Your task to perform on an android device: turn off improve location accuracy Image 0: 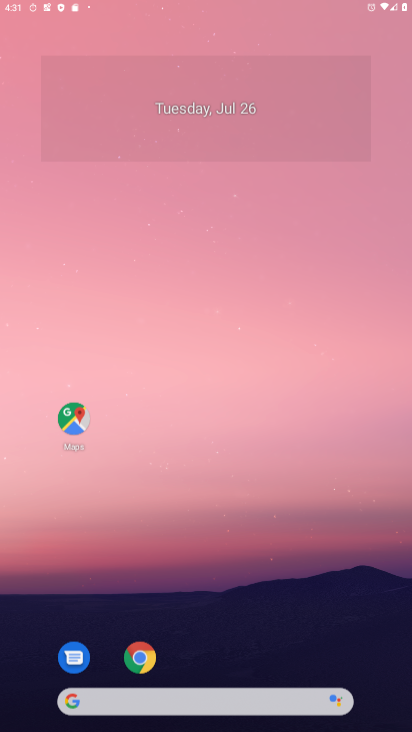
Step 0: press home button
Your task to perform on an android device: turn off improve location accuracy Image 1: 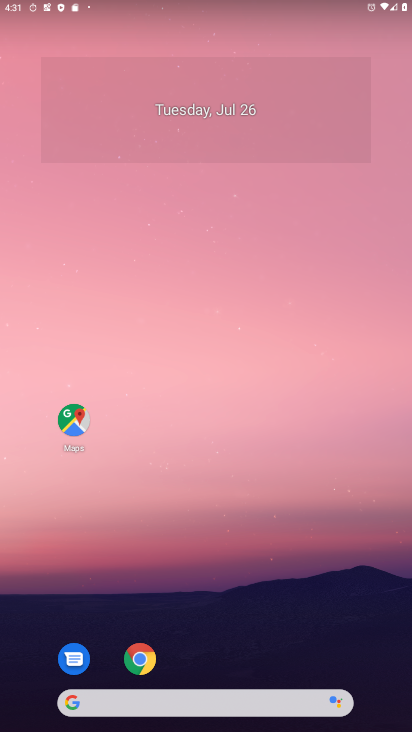
Step 1: drag from (220, 670) to (287, 25)
Your task to perform on an android device: turn off improve location accuracy Image 2: 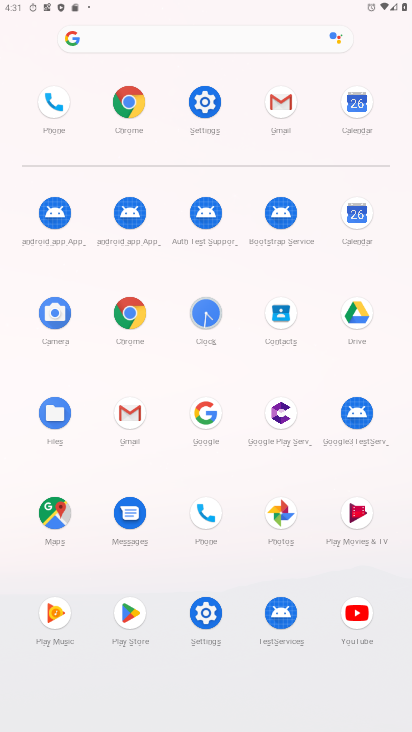
Step 2: click (211, 105)
Your task to perform on an android device: turn off improve location accuracy Image 3: 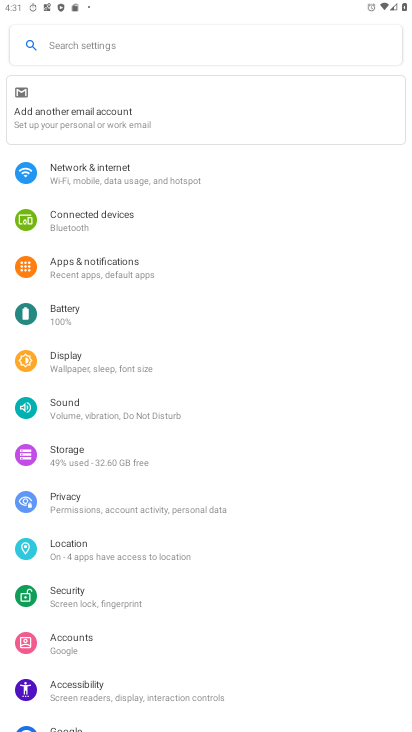
Step 3: click (85, 547)
Your task to perform on an android device: turn off improve location accuracy Image 4: 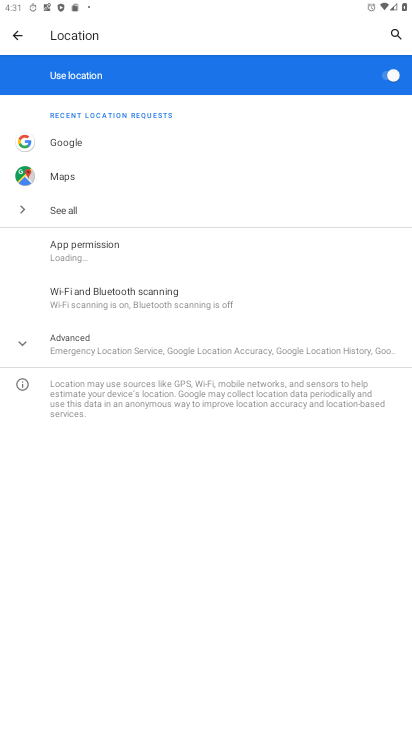
Step 4: click (81, 337)
Your task to perform on an android device: turn off improve location accuracy Image 5: 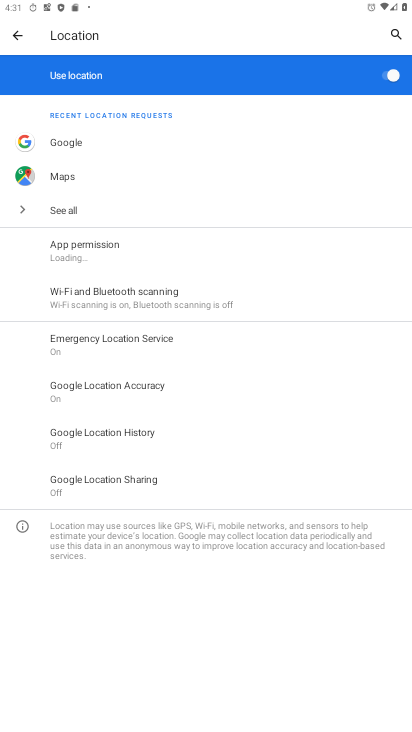
Step 5: click (99, 390)
Your task to perform on an android device: turn off improve location accuracy Image 6: 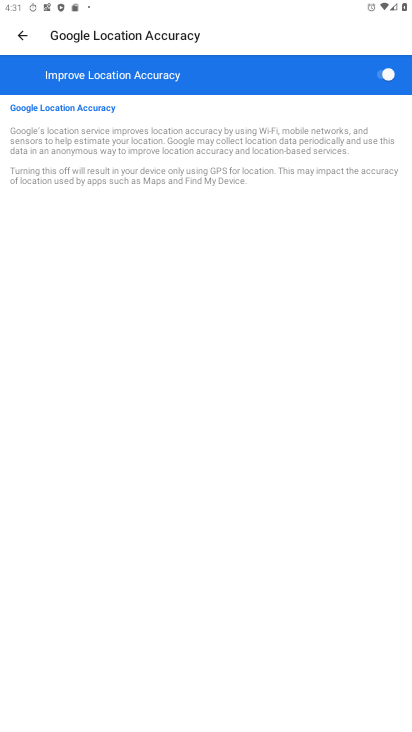
Step 6: click (398, 70)
Your task to perform on an android device: turn off improve location accuracy Image 7: 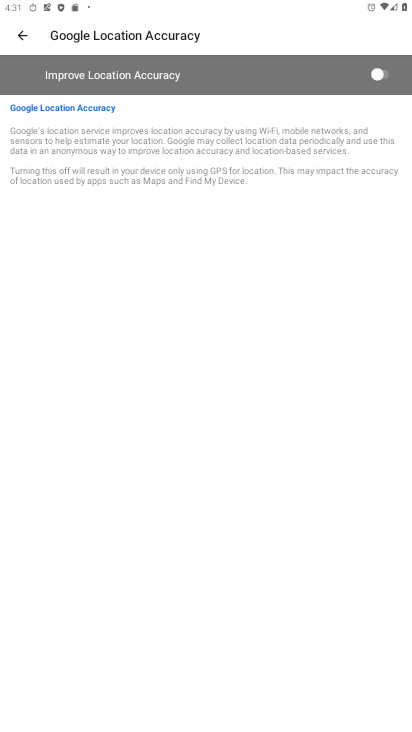
Step 7: task complete